Your task to perform on an android device: star an email in the gmail app Image 0: 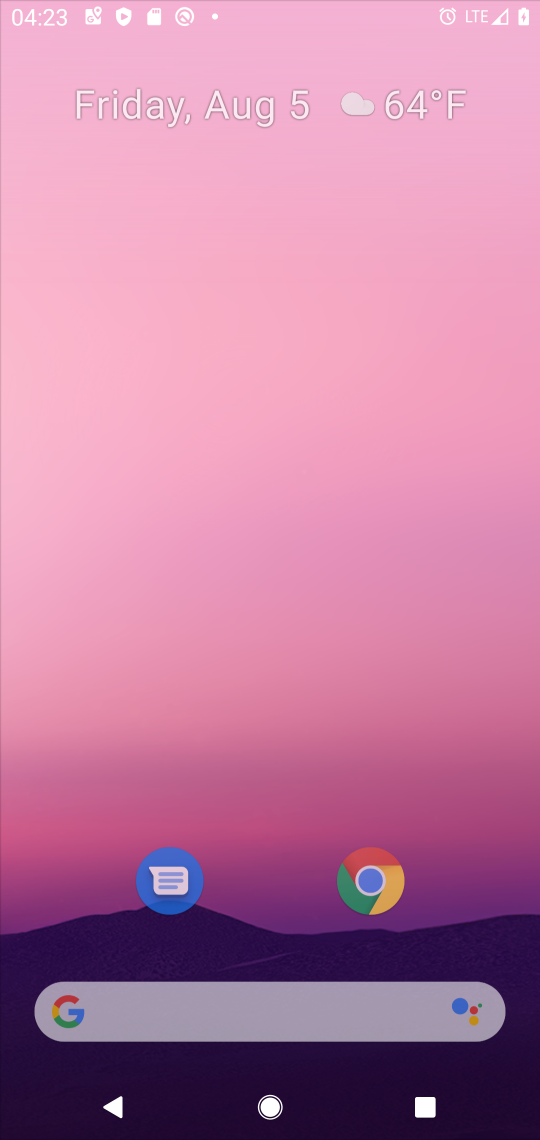
Step 0: click (425, 70)
Your task to perform on an android device: star an email in the gmail app Image 1: 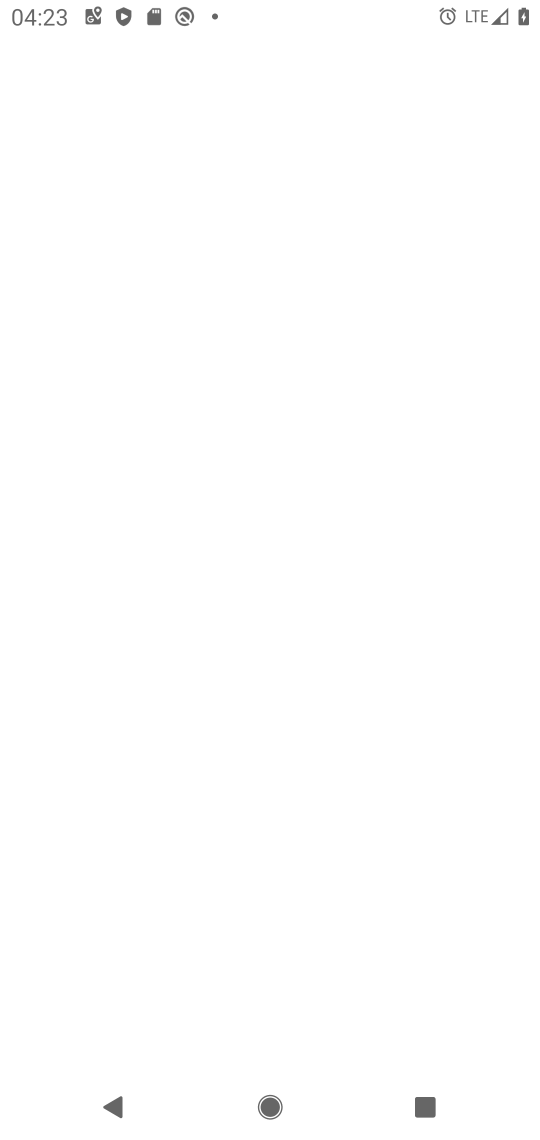
Step 1: drag from (250, 948) to (326, 56)
Your task to perform on an android device: star an email in the gmail app Image 2: 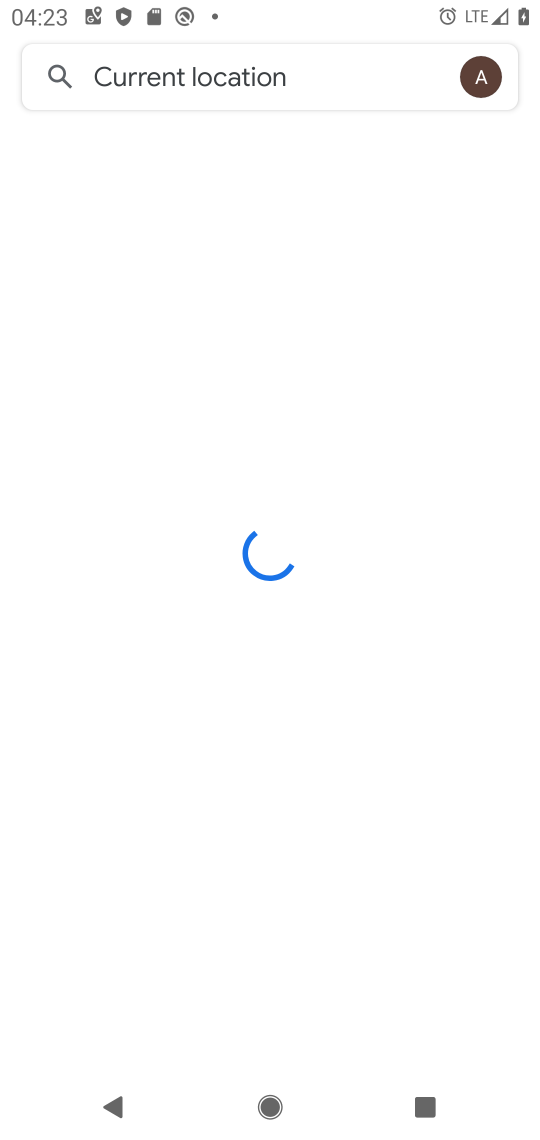
Step 2: press back button
Your task to perform on an android device: star an email in the gmail app Image 3: 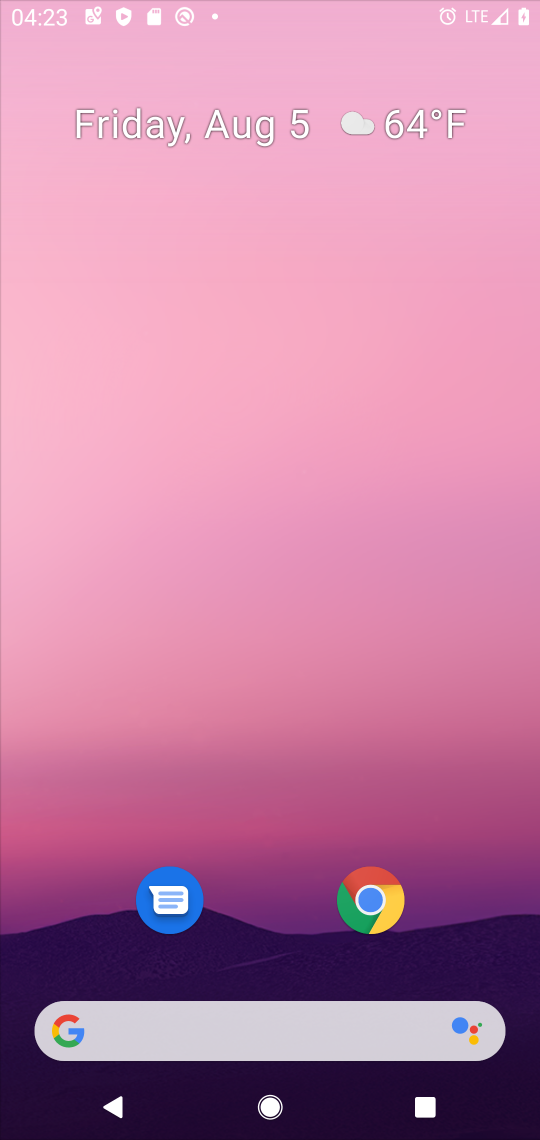
Step 3: press back button
Your task to perform on an android device: star an email in the gmail app Image 4: 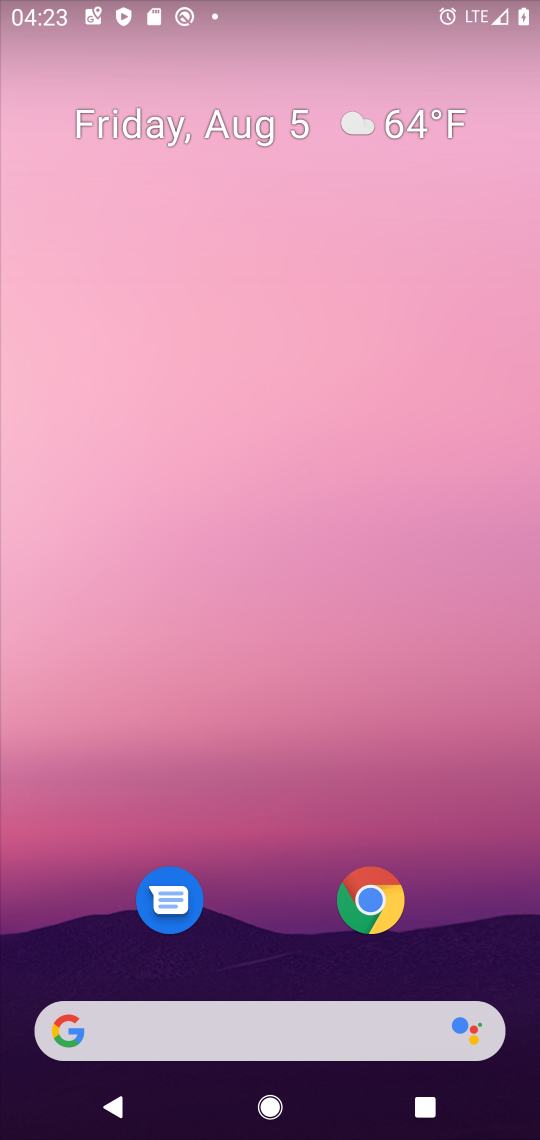
Step 4: drag from (280, 968) to (441, 6)
Your task to perform on an android device: star an email in the gmail app Image 5: 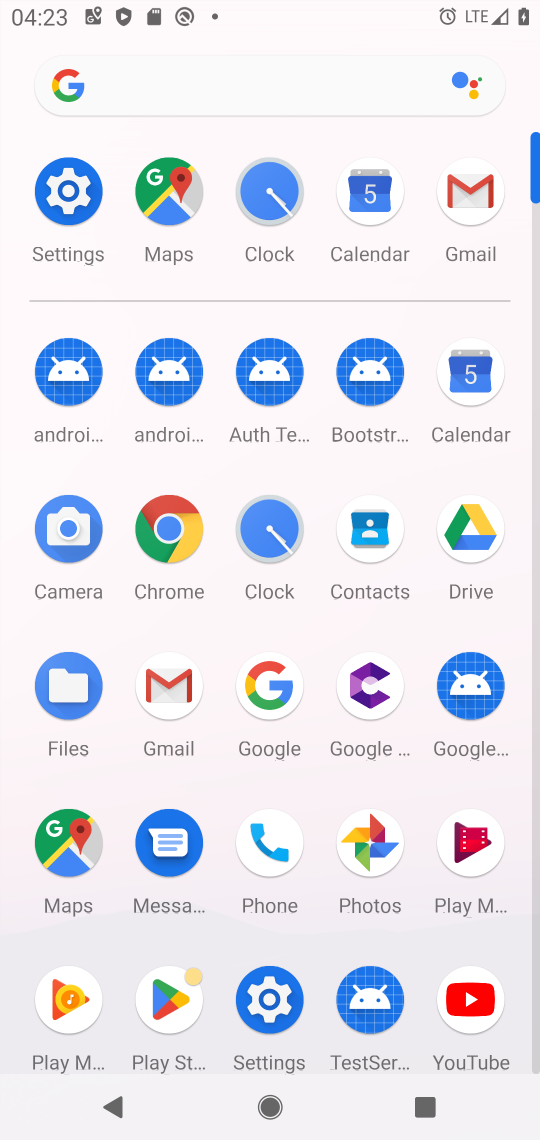
Step 5: click (489, 214)
Your task to perform on an android device: star an email in the gmail app Image 6: 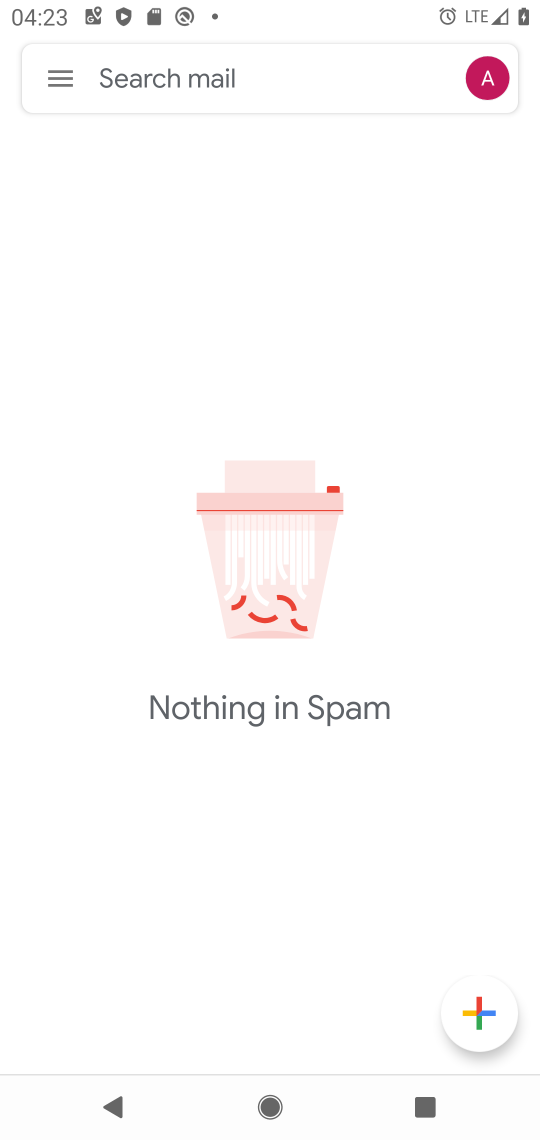
Step 6: click (63, 68)
Your task to perform on an android device: star an email in the gmail app Image 7: 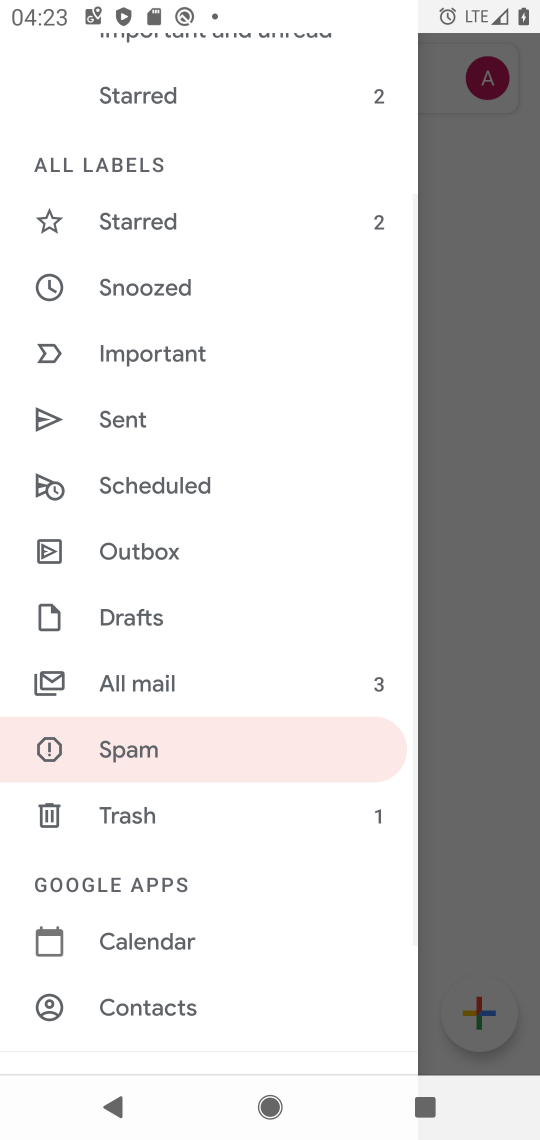
Step 7: click (165, 681)
Your task to perform on an android device: star an email in the gmail app Image 8: 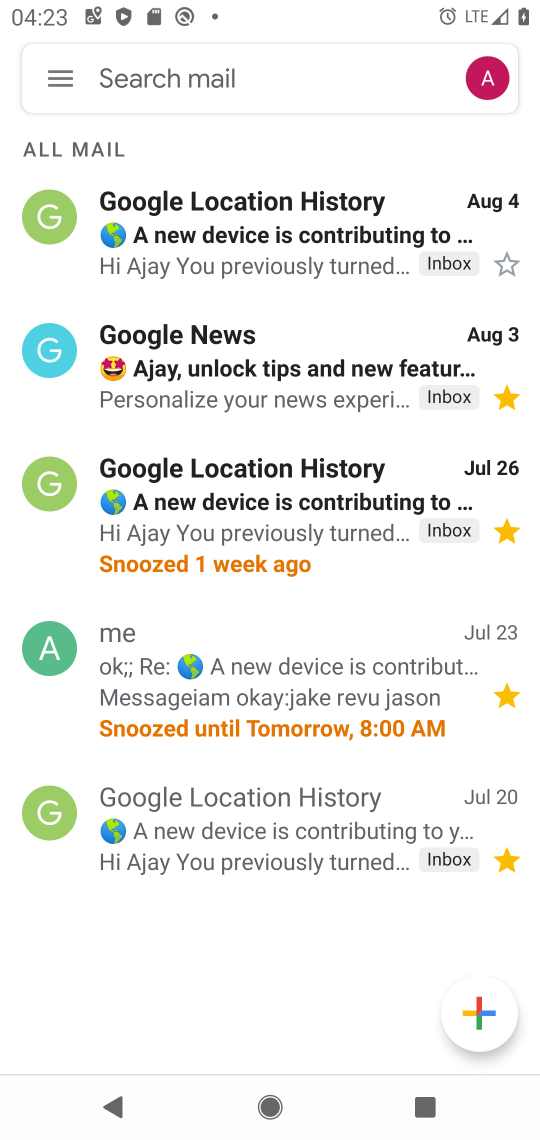
Step 8: click (504, 265)
Your task to perform on an android device: star an email in the gmail app Image 9: 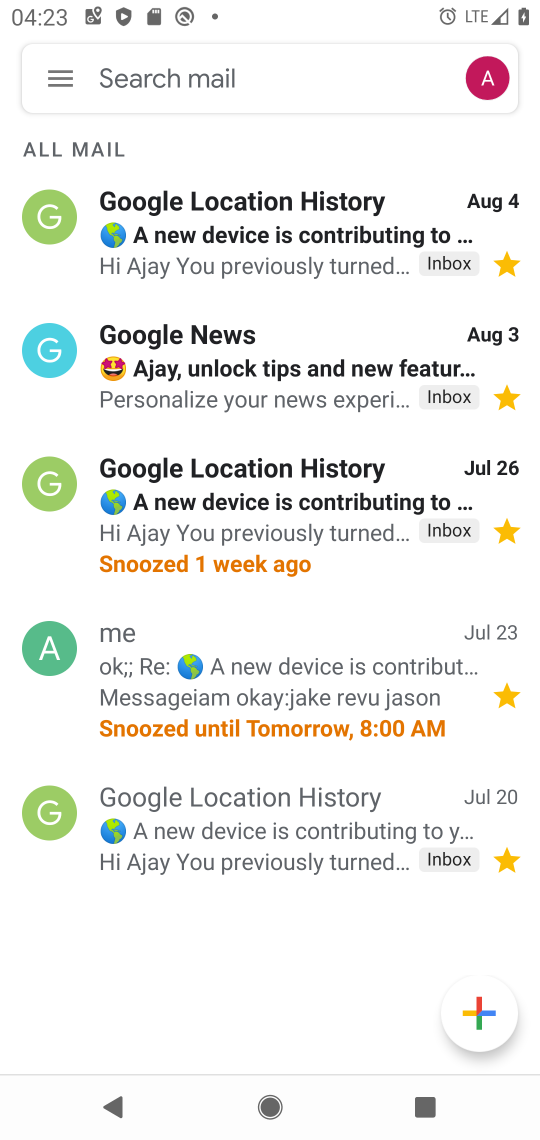
Step 9: task complete